Your task to perform on an android device: Open display settings Image 0: 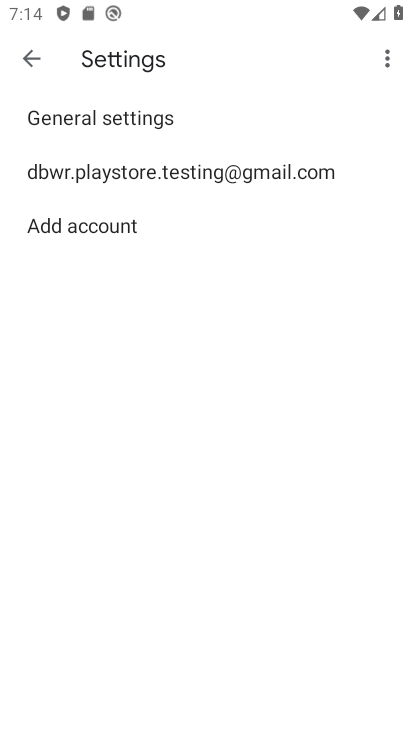
Step 0: press home button
Your task to perform on an android device: Open display settings Image 1: 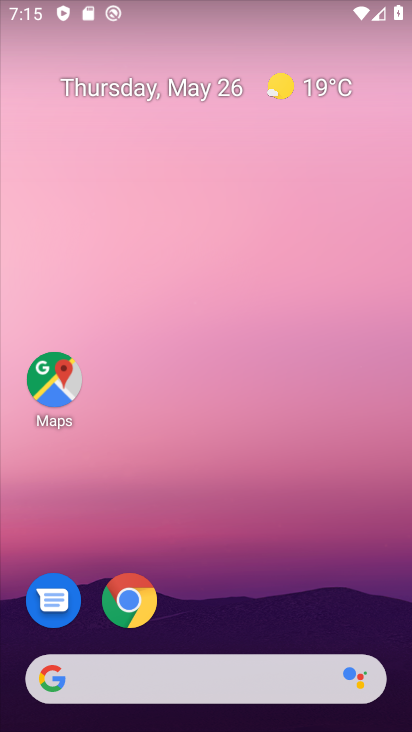
Step 1: drag from (231, 687) to (178, 96)
Your task to perform on an android device: Open display settings Image 2: 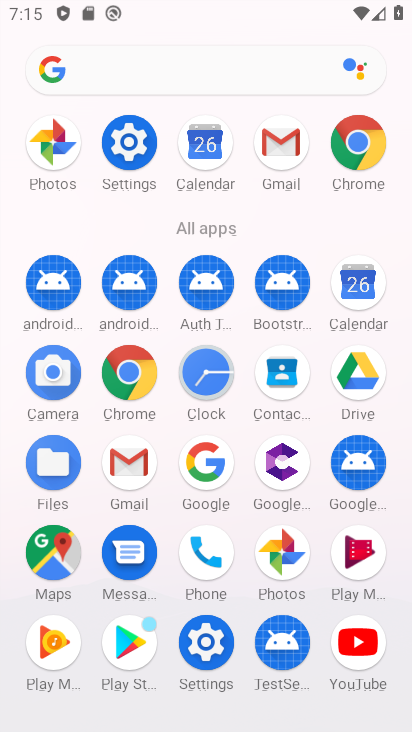
Step 2: click (108, 165)
Your task to perform on an android device: Open display settings Image 3: 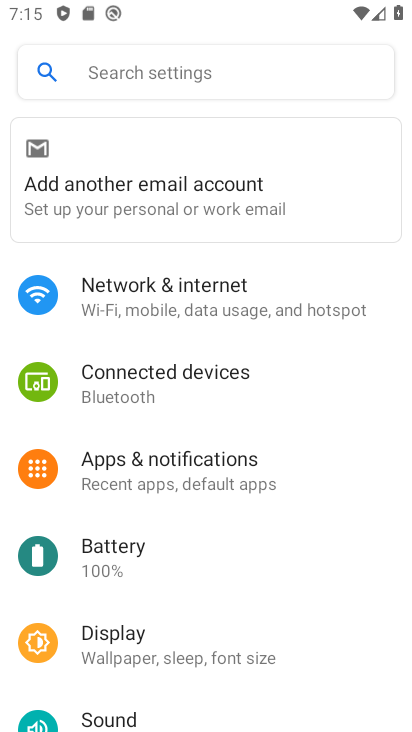
Step 3: click (157, 625)
Your task to perform on an android device: Open display settings Image 4: 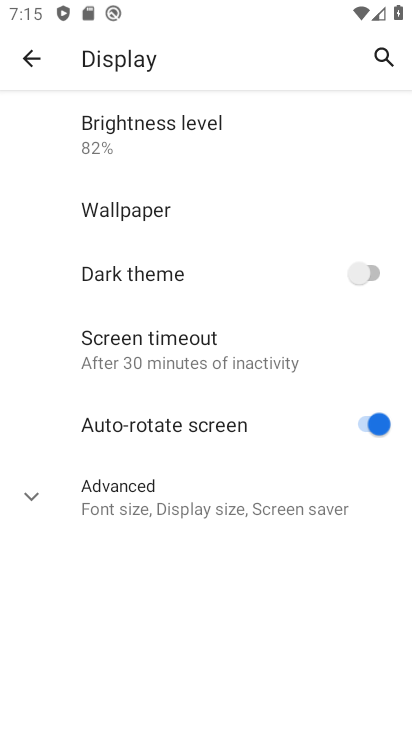
Step 4: task complete